Your task to perform on an android device: open app "Airtel Thanks" (install if not already installed) and go to login screen Image 0: 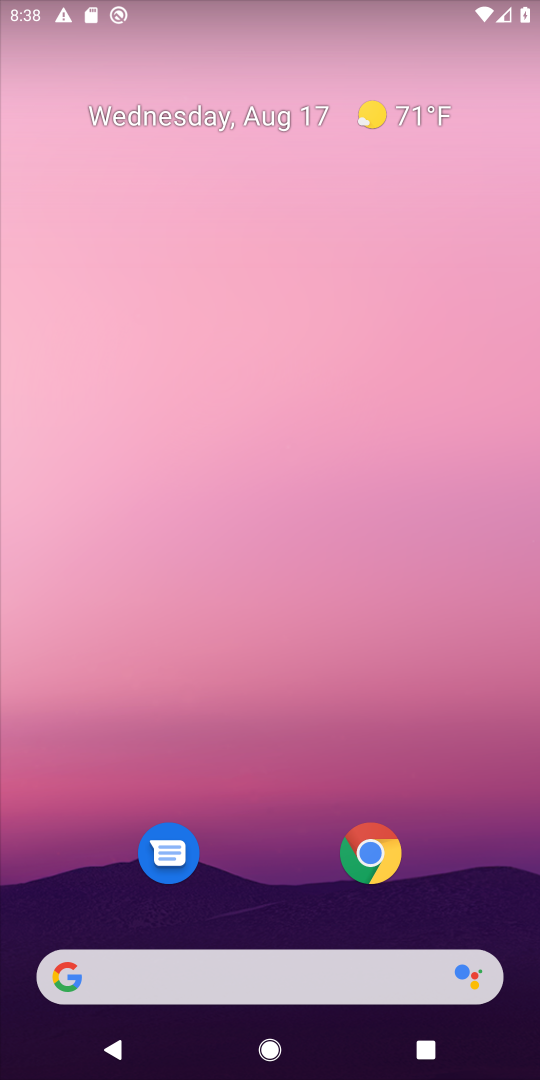
Step 0: drag from (284, 812) to (275, 145)
Your task to perform on an android device: open app "Airtel Thanks" (install if not already installed) and go to login screen Image 1: 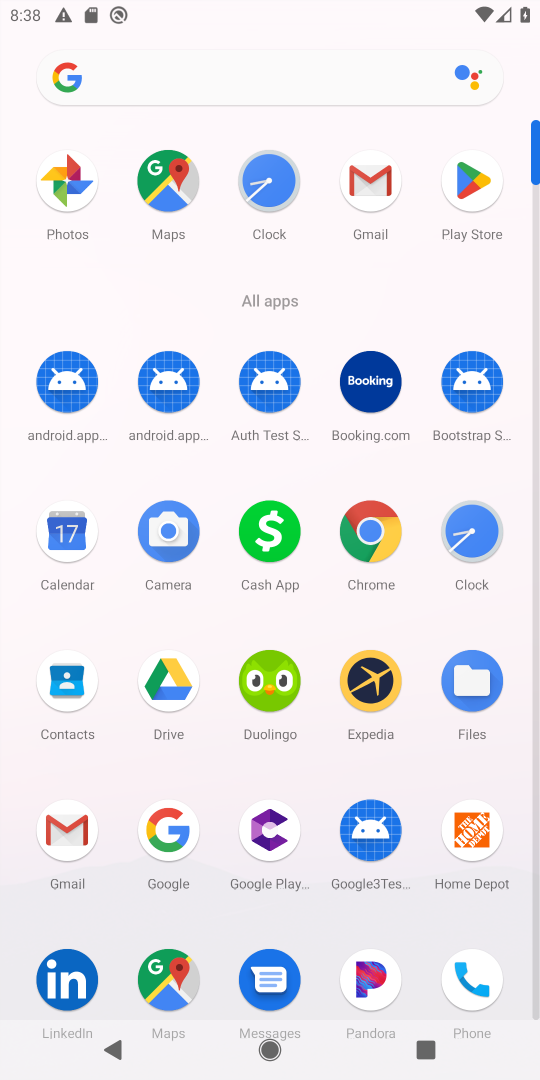
Step 1: click (464, 182)
Your task to perform on an android device: open app "Airtel Thanks" (install if not already installed) and go to login screen Image 2: 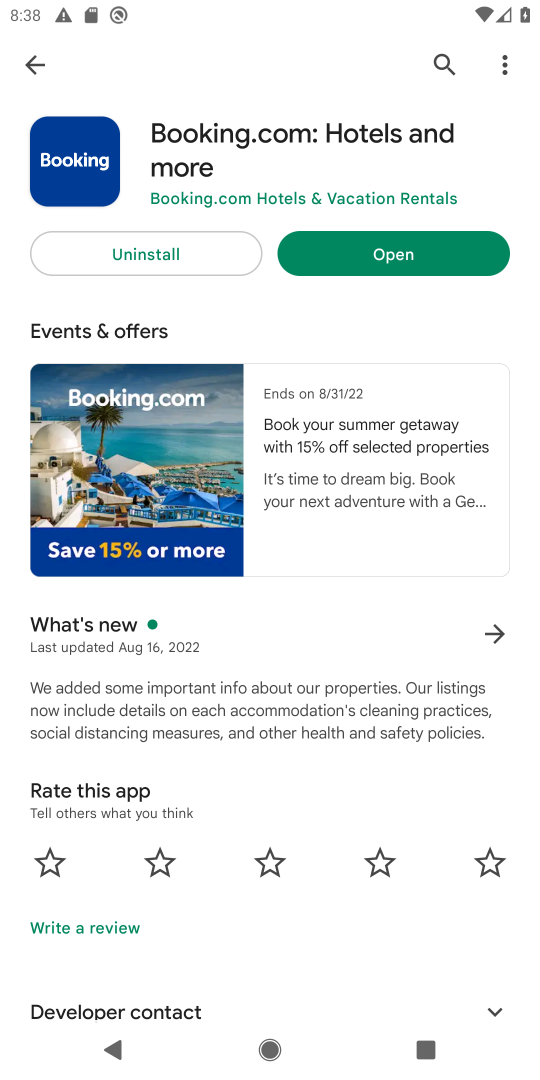
Step 2: click (434, 62)
Your task to perform on an android device: open app "Airtel Thanks" (install if not already installed) and go to login screen Image 3: 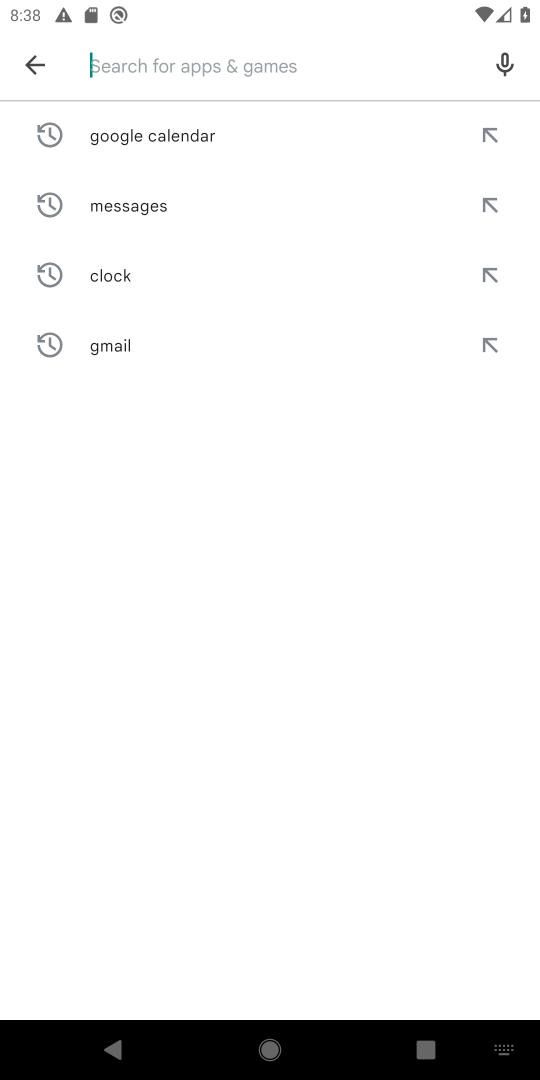
Step 3: type "Airtel Thanks"
Your task to perform on an android device: open app "Airtel Thanks" (install if not already installed) and go to login screen Image 4: 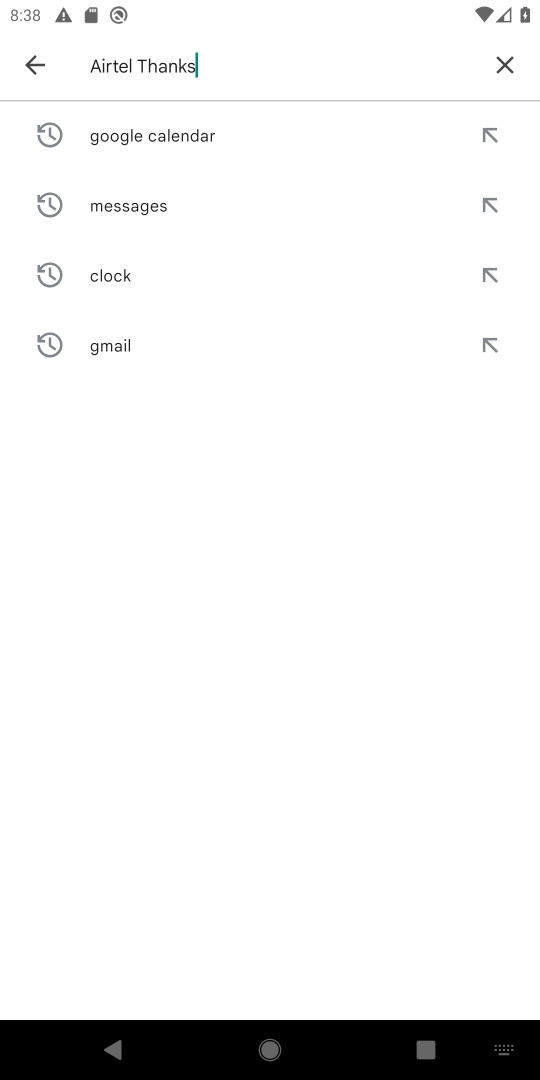
Step 4: type ""
Your task to perform on an android device: open app "Airtel Thanks" (install if not already installed) and go to login screen Image 5: 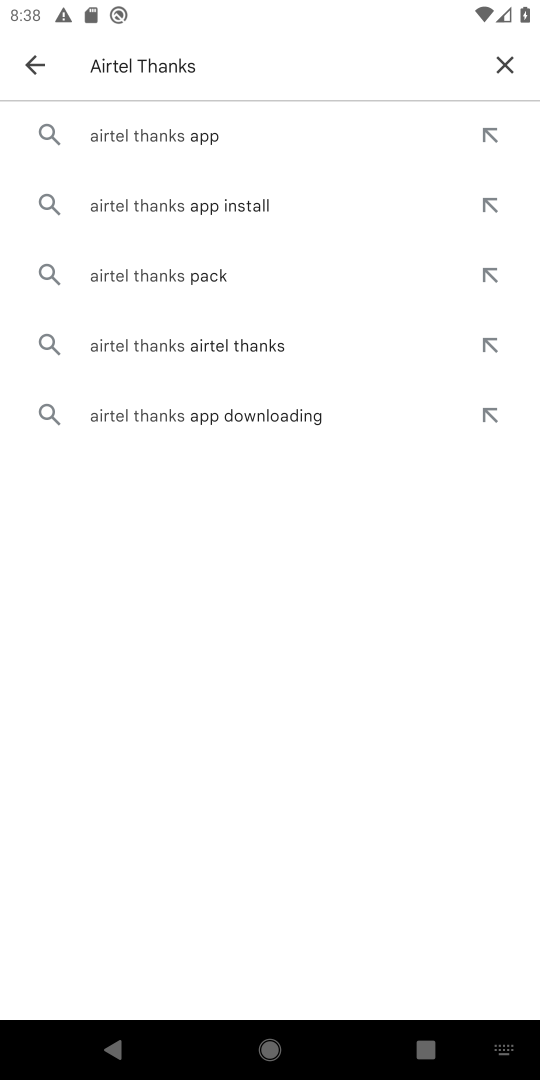
Step 5: click (265, 131)
Your task to perform on an android device: open app "Airtel Thanks" (install if not already installed) and go to login screen Image 6: 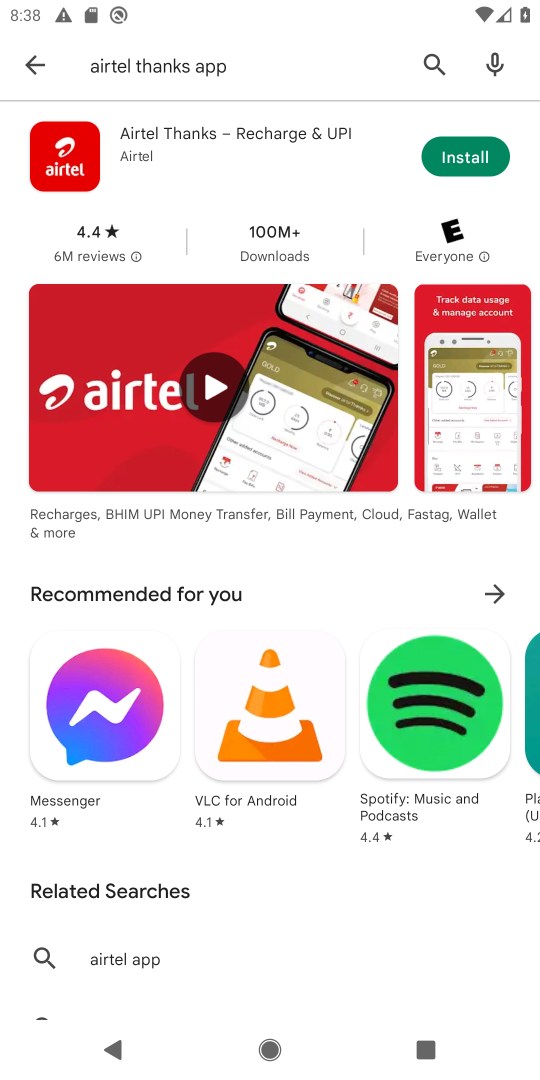
Step 6: click (450, 148)
Your task to perform on an android device: open app "Airtel Thanks" (install if not already installed) and go to login screen Image 7: 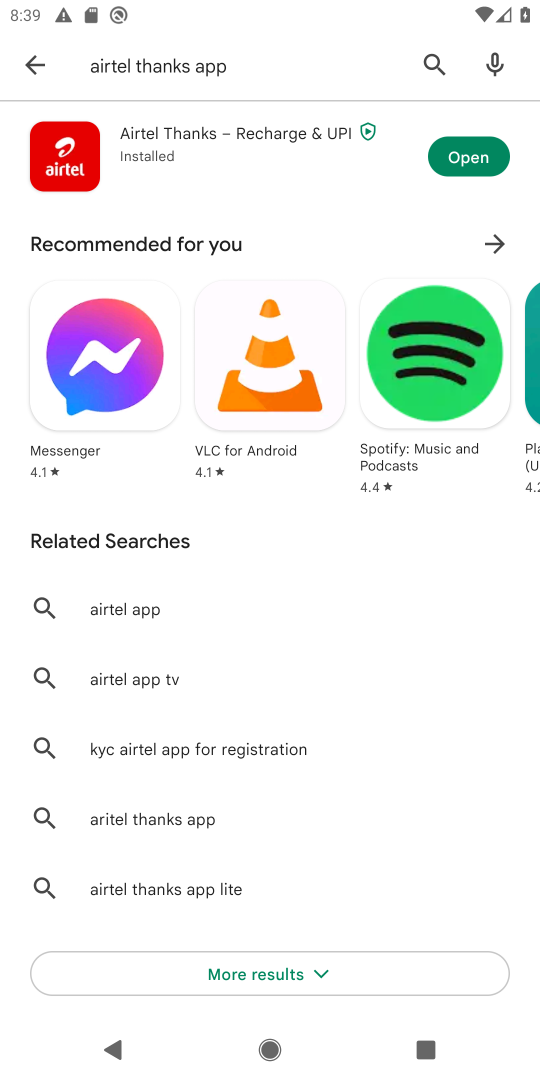
Step 7: click (443, 153)
Your task to perform on an android device: open app "Airtel Thanks" (install if not already installed) and go to login screen Image 8: 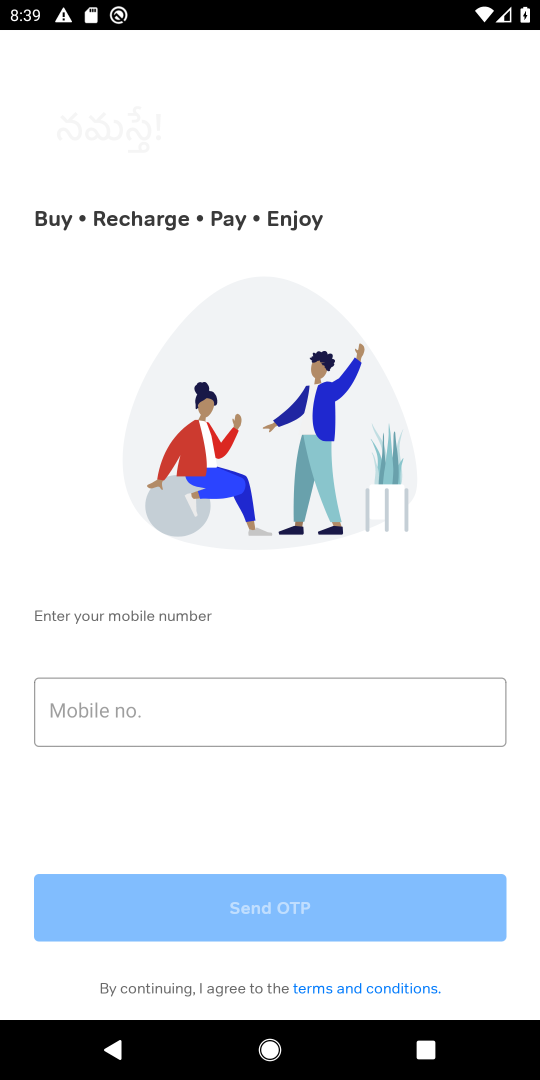
Step 8: task complete